Your task to perform on an android device: visit the assistant section in the google photos Image 0: 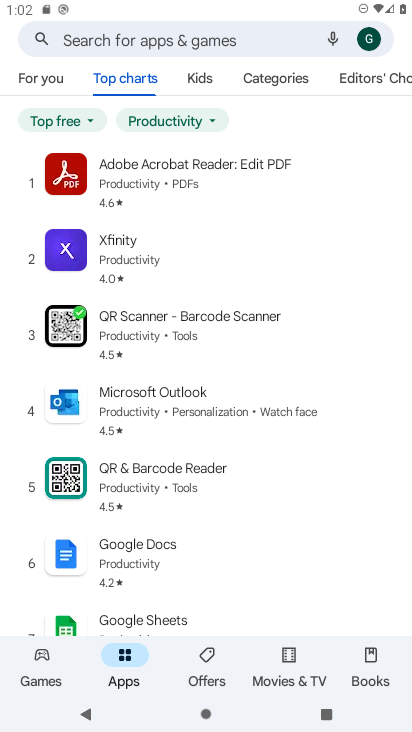
Step 0: press home button
Your task to perform on an android device: visit the assistant section in the google photos Image 1: 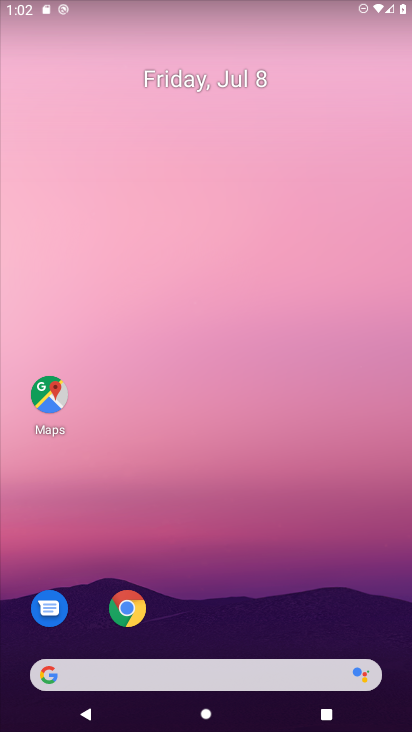
Step 1: drag from (263, 643) to (261, 132)
Your task to perform on an android device: visit the assistant section in the google photos Image 2: 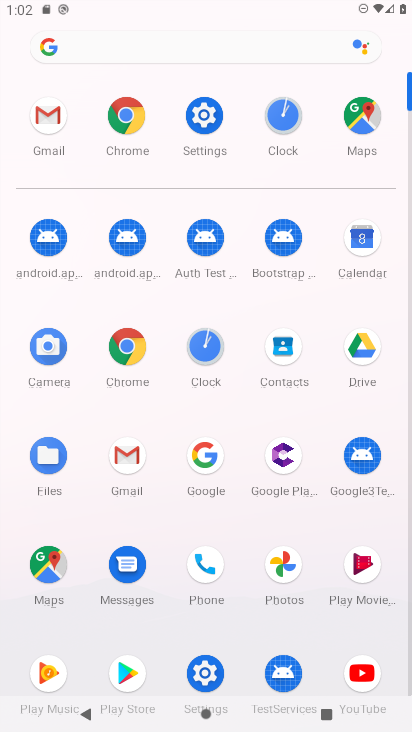
Step 2: click (276, 565)
Your task to perform on an android device: visit the assistant section in the google photos Image 3: 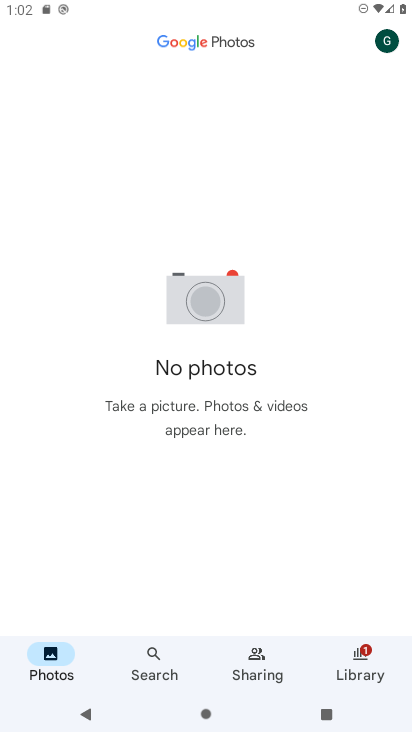
Step 3: click (360, 666)
Your task to perform on an android device: visit the assistant section in the google photos Image 4: 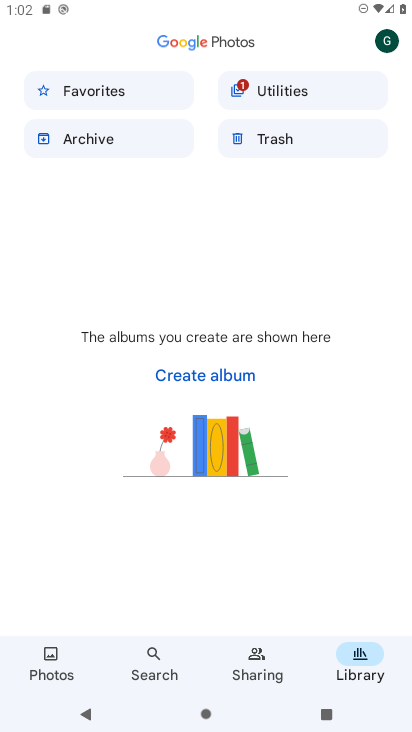
Step 4: click (369, 48)
Your task to perform on an android device: visit the assistant section in the google photos Image 5: 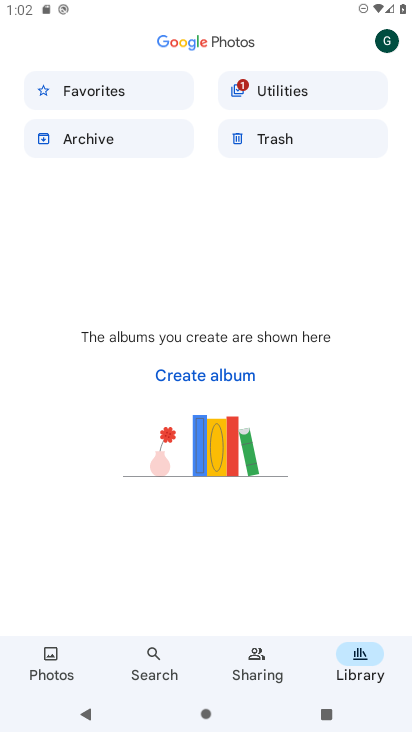
Step 5: click (380, 44)
Your task to perform on an android device: visit the assistant section in the google photos Image 6: 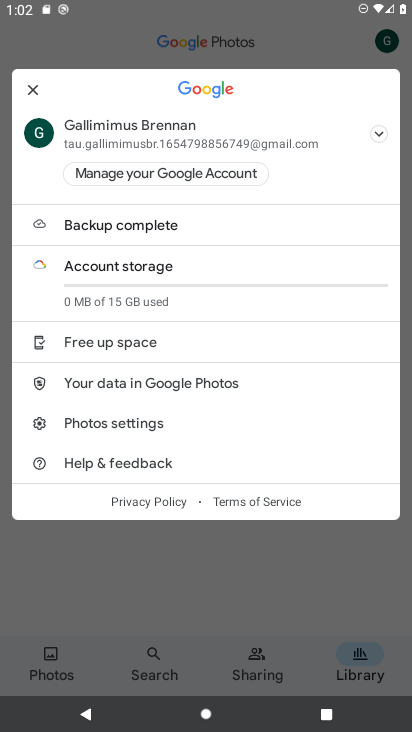
Step 6: click (238, 541)
Your task to perform on an android device: visit the assistant section in the google photos Image 7: 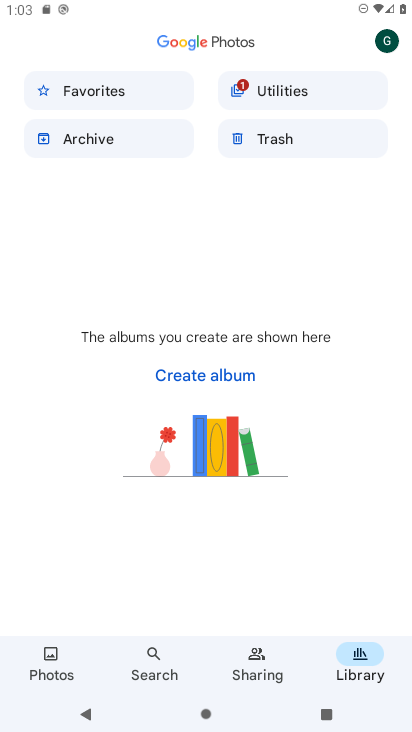
Step 7: task complete